Your task to perform on an android device: Open calendar and show me the first week of next month Image 0: 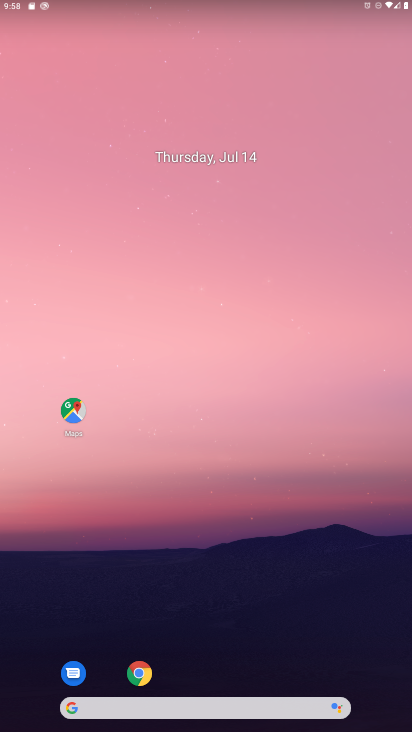
Step 0: drag from (189, 709) to (309, 213)
Your task to perform on an android device: Open calendar and show me the first week of next month Image 1: 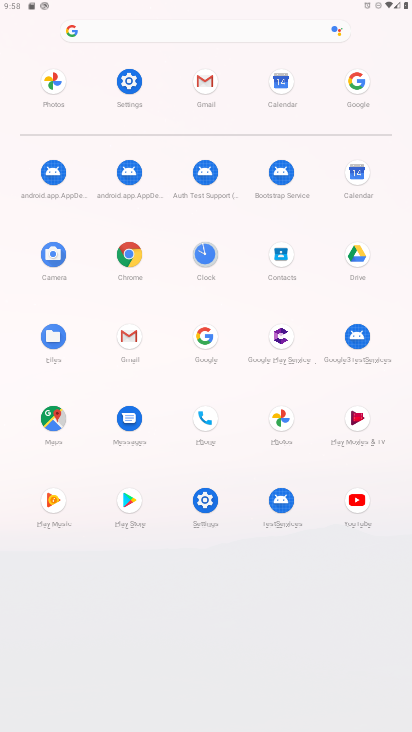
Step 1: click (356, 173)
Your task to perform on an android device: Open calendar and show me the first week of next month Image 2: 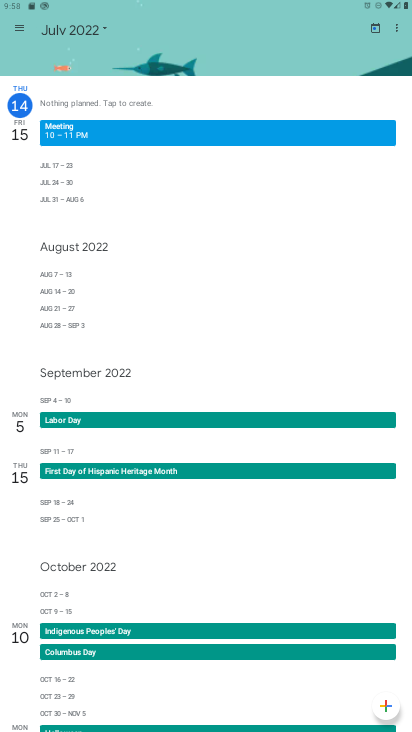
Step 2: click (377, 33)
Your task to perform on an android device: Open calendar and show me the first week of next month Image 3: 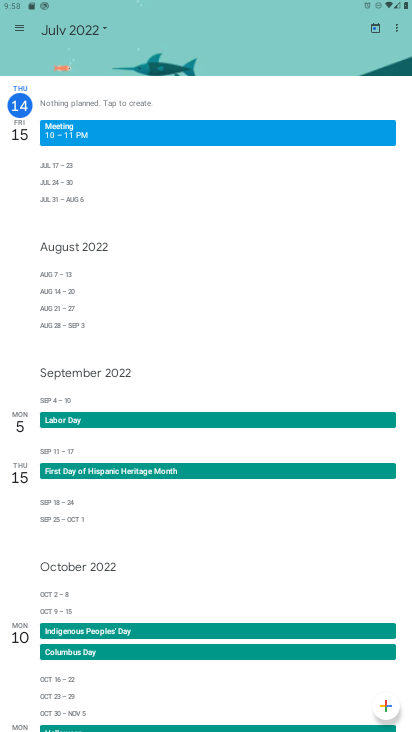
Step 3: click (102, 27)
Your task to perform on an android device: Open calendar and show me the first week of next month Image 4: 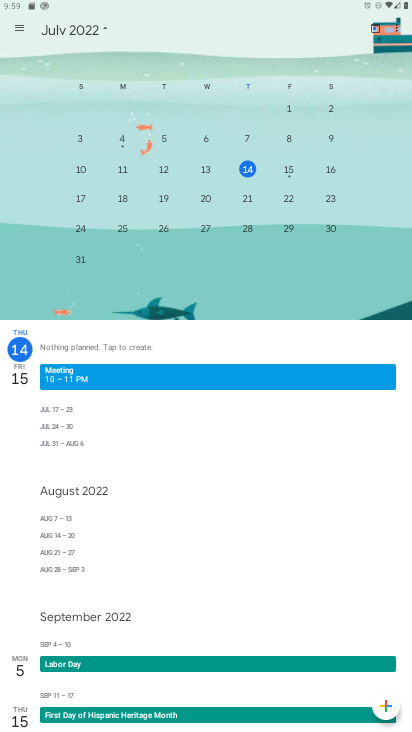
Step 4: drag from (339, 211) to (0, 219)
Your task to perform on an android device: Open calendar and show me the first week of next month Image 5: 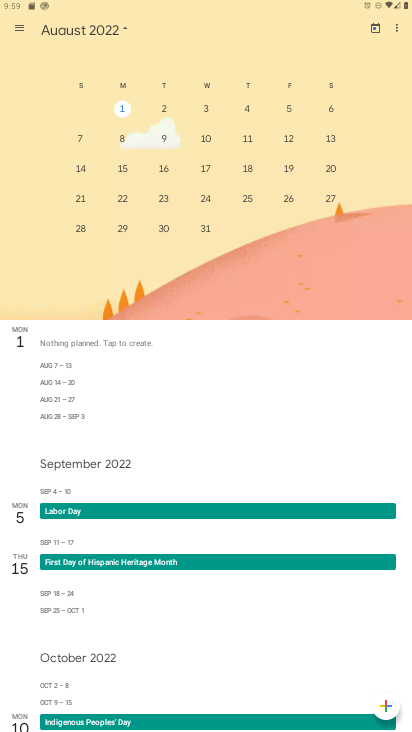
Step 5: click (126, 109)
Your task to perform on an android device: Open calendar and show me the first week of next month Image 6: 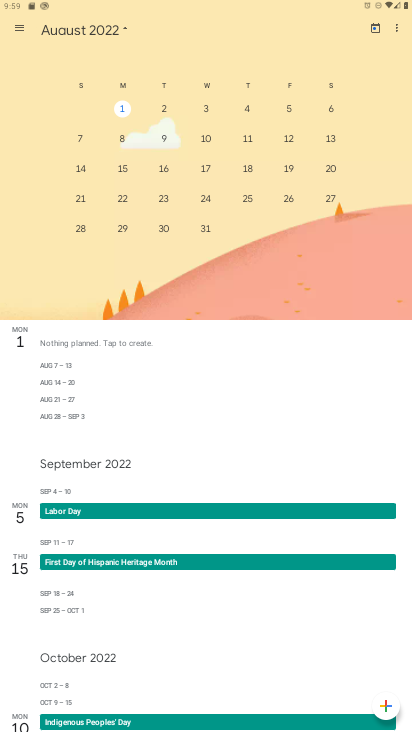
Step 6: click (21, 30)
Your task to perform on an android device: Open calendar and show me the first week of next month Image 7: 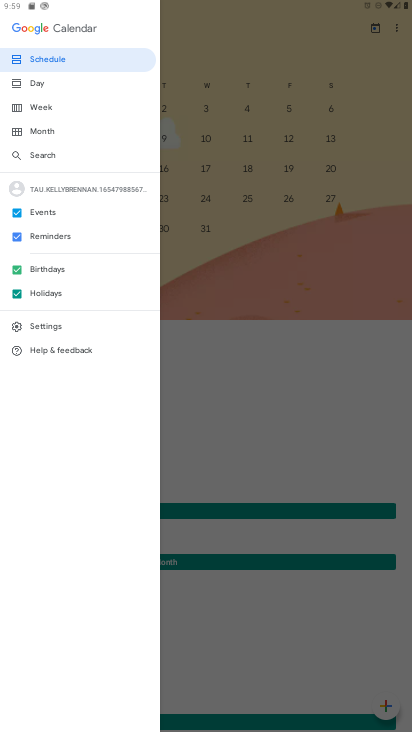
Step 7: click (40, 102)
Your task to perform on an android device: Open calendar and show me the first week of next month Image 8: 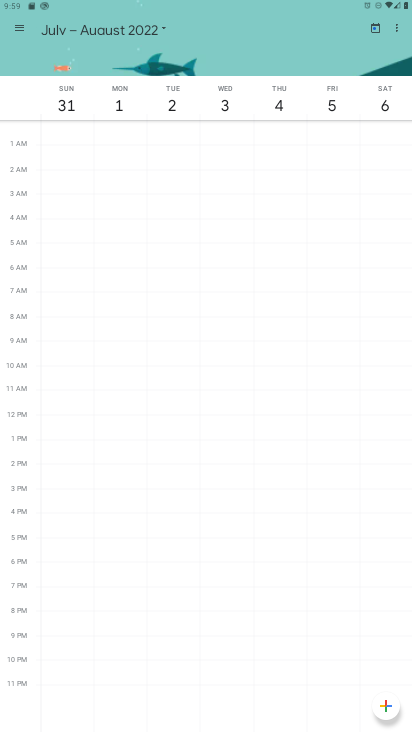
Step 8: task complete